Your task to perform on an android device: turn off notifications settings in the gmail app Image 0: 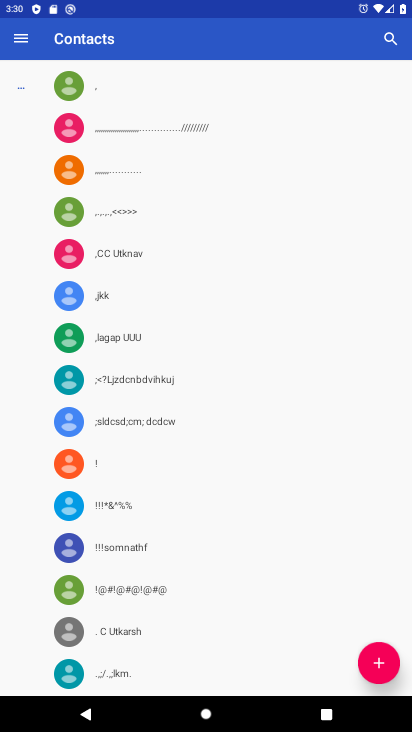
Step 0: press home button
Your task to perform on an android device: turn off notifications settings in the gmail app Image 1: 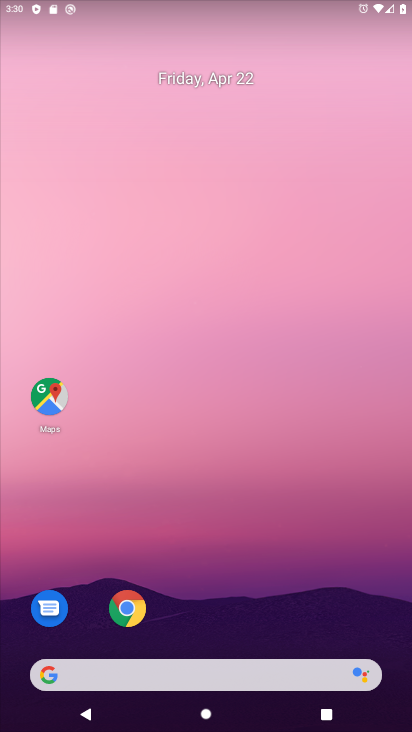
Step 1: drag from (258, 623) to (207, 314)
Your task to perform on an android device: turn off notifications settings in the gmail app Image 2: 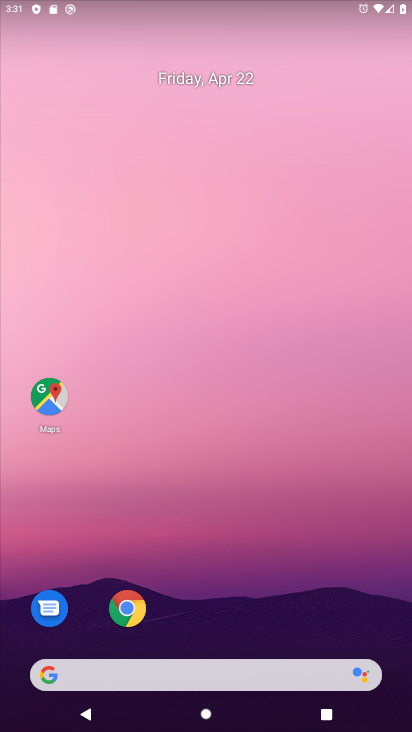
Step 2: drag from (251, 606) to (207, 339)
Your task to perform on an android device: turn off notifications settings in the gmail app Image 3: 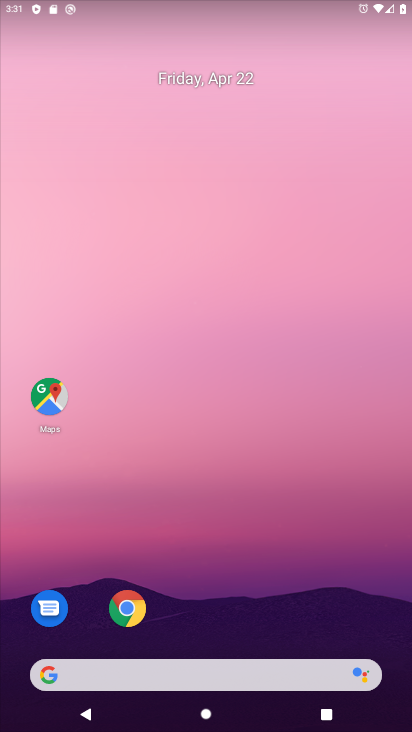
Step 3: drag from (238, 625) to (266, 266)
Your task to perform on an android device: turn off notifications settings in the gmail app Image 4: 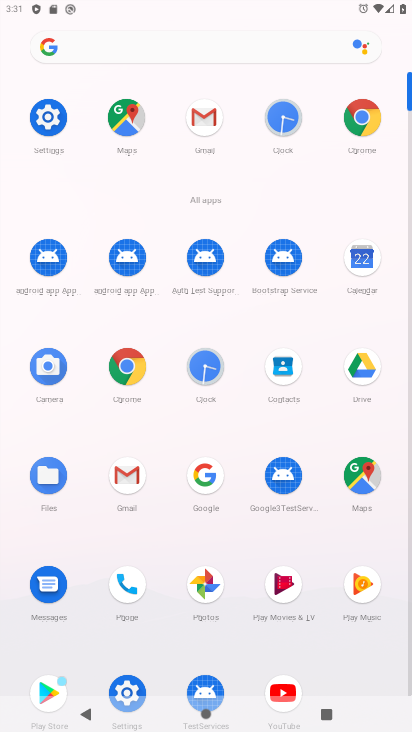
Step 4: click (209, 139)
Your task to perform on an android device: turn off notifications settings in the gmail app Image 5: 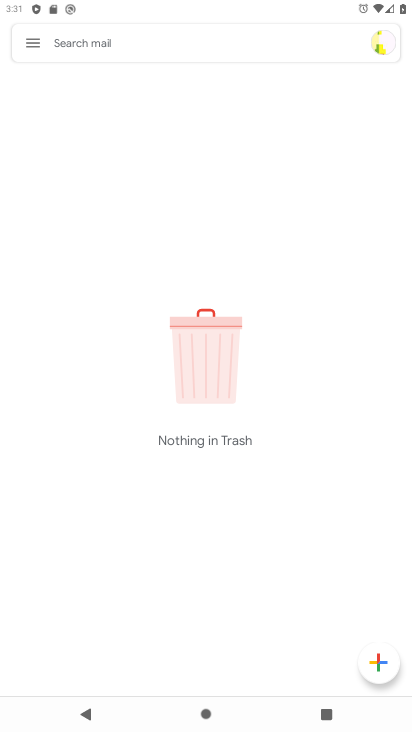
Step 5: click (37, 49)
Your task to perform on an android device: turn off notifications settings in the gmail app Image 6: 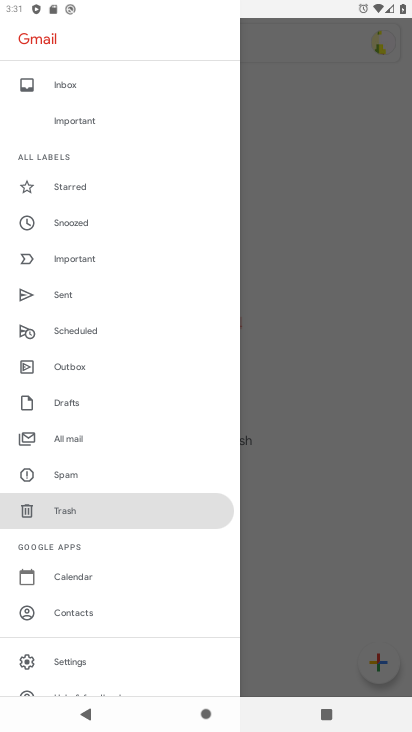
Step 6: click (125, 664)
Your task to perform on an android device: turn off notifications settings in the gmail app Image 7: 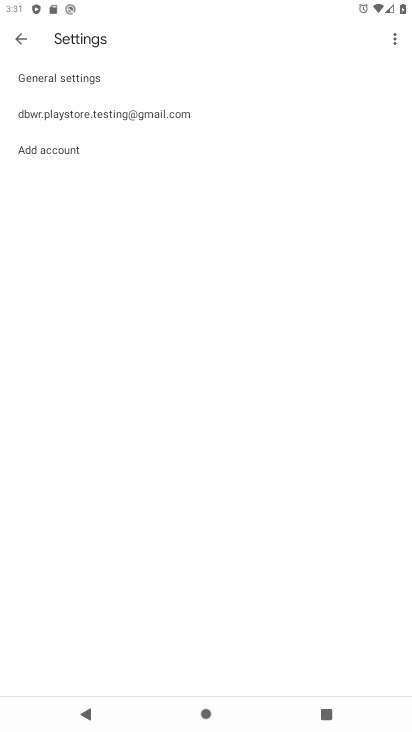
Step 7: click (197, 115)
Your task to perform on an android device: turn off notifications settings in the gmail app Image 8: 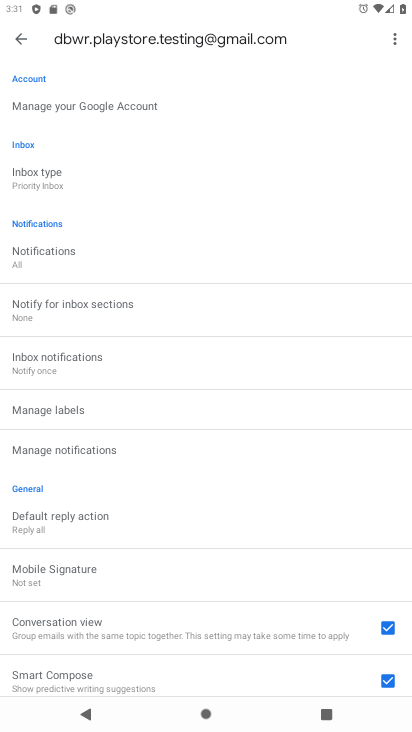
Step 8: click (174, 456)
Your task to perform on an android device: turn off notifications settings in the gmail app Image 9: 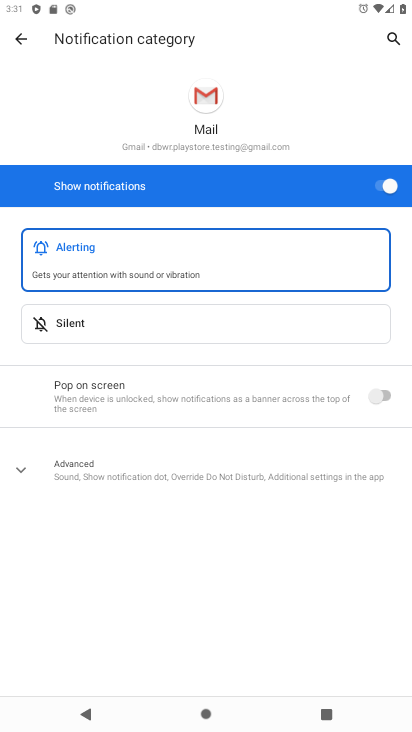
Step 9: task complete